Your task to perform on an android device: toggle location history Image 0: 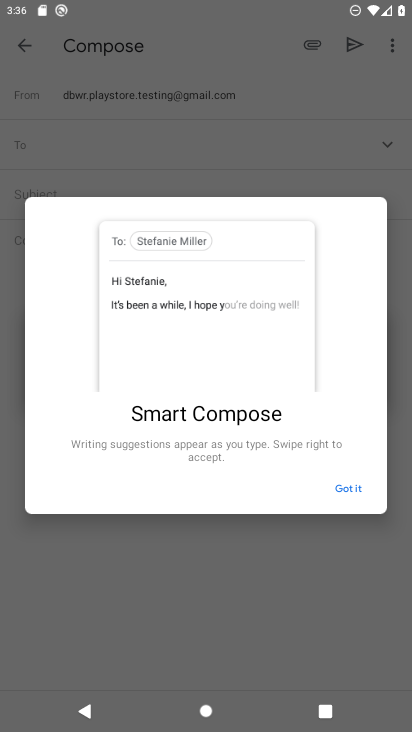
Step 0: press home button
Your task to perform on an android device: toggle location history Image 1: 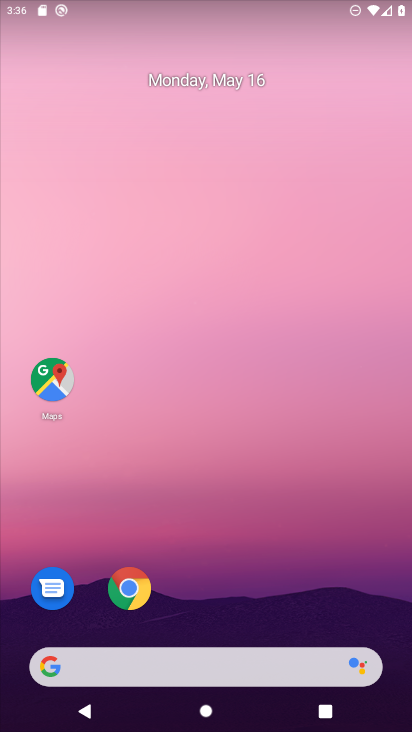
Step 1: click (51, 384)
Your task to perform on an android device: toggle location history Image 2: 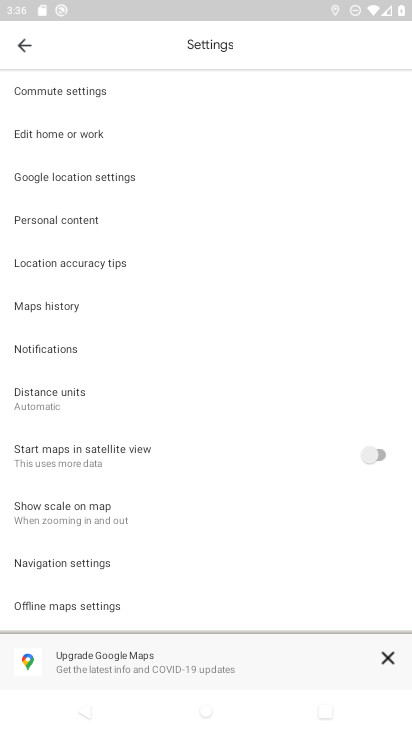
Step 2: click (20, 44)
Your task to perform on an android device: toggle location history Image 3: 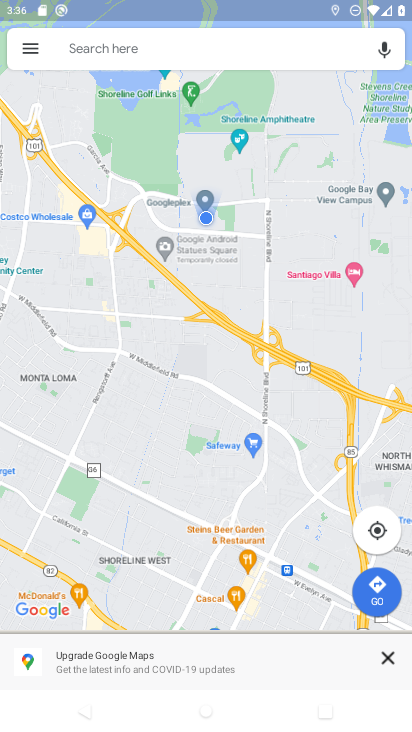
Step 3: click (33, 46)
Your task to perform on an android device: toggle location history Image 4: 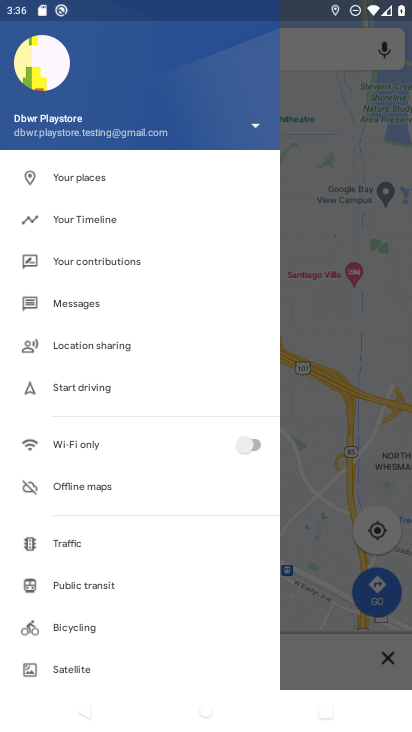
Step 4: click (71, 216)
Your task to perform on an android device: toggle location history Image 5: 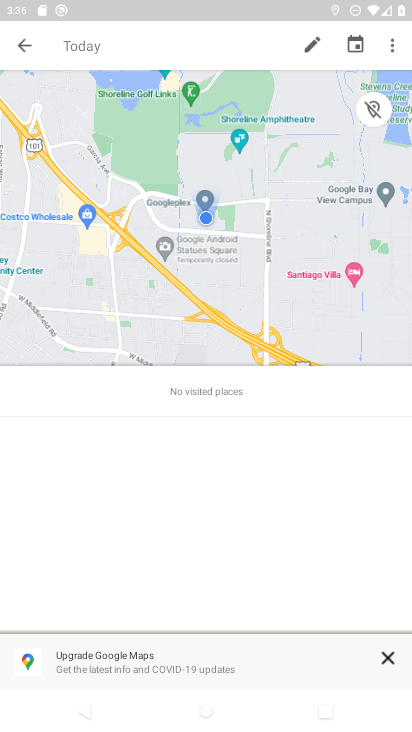
Step 5: click (392, 42)
Your task to perform on an android device: toggle location history Image 6: 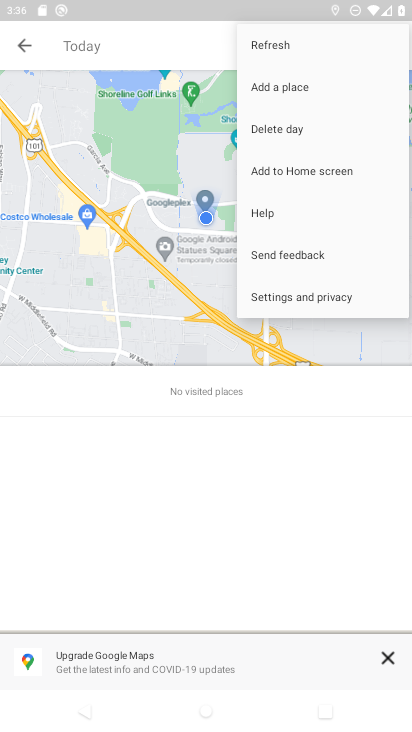
Step 6: click (310, 293)
Your task to perform on an android device: toggle location history Image 7: 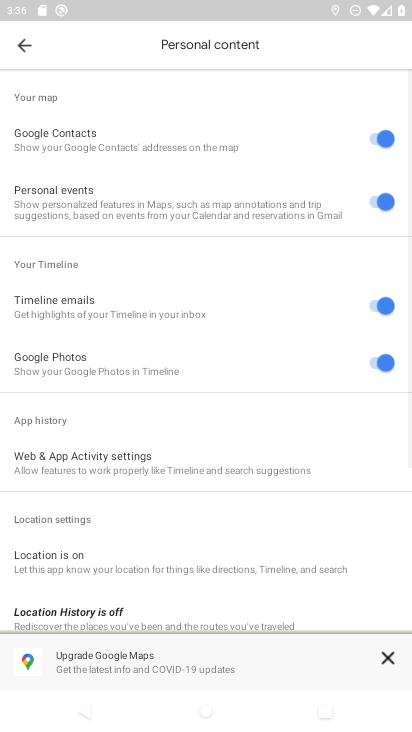
Step 7: drag from (125, 550) to (126, 236)
Your task to perform on an android device: toggle location history Image 8: 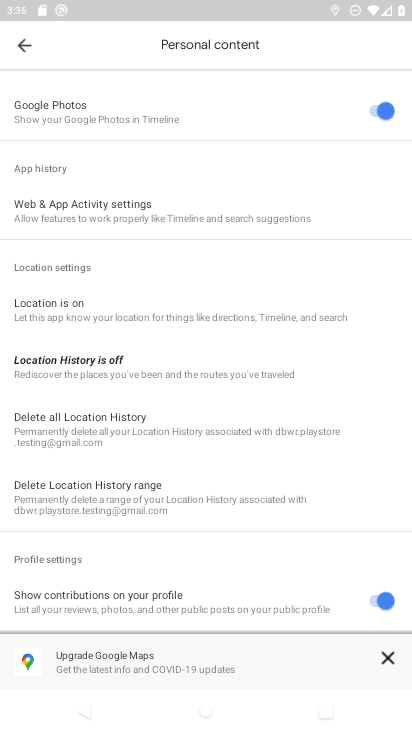
Step 8: click (69, 367)
Your task to perform on an android device: toggle location history Image 9: 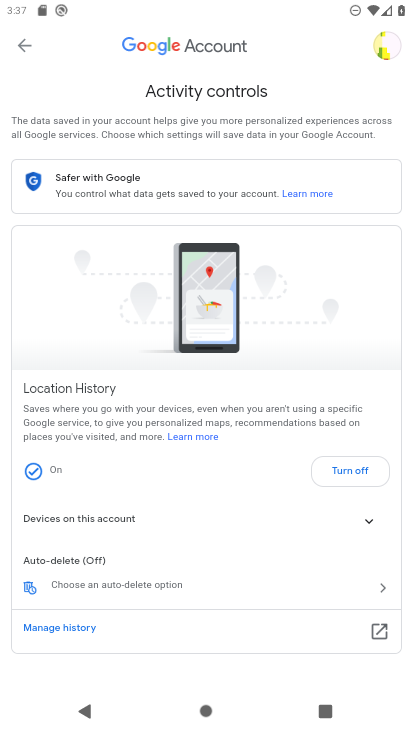
Step 9: click (352, 469)
Your task to perform on an android device: toggle location history Image 10: 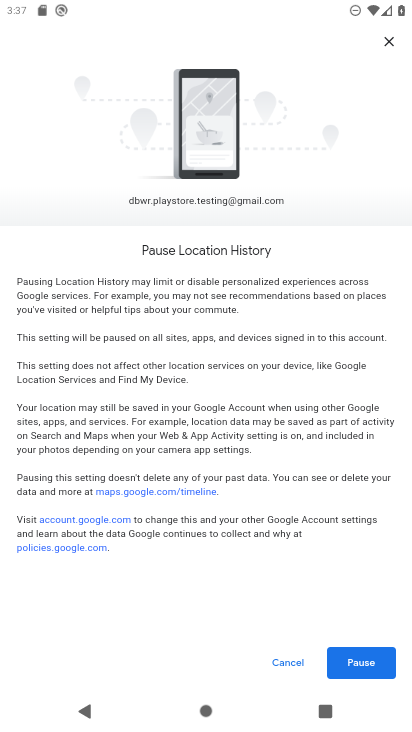
Step 10: click (356, 666)
Your task to perform on an android device: toggle location history Image 11: 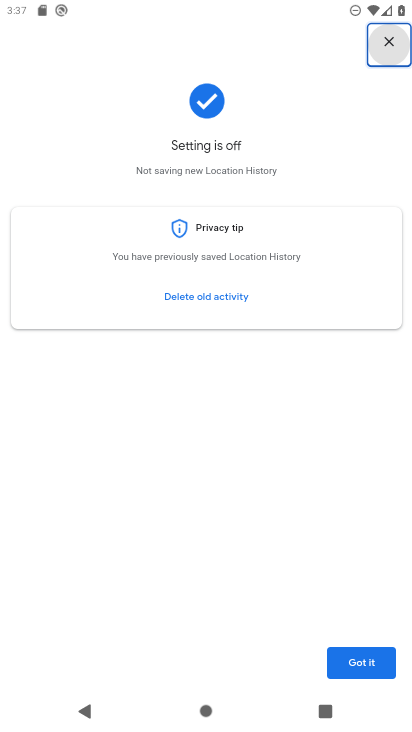
Step 11: click (356, 667)
Your task to perform on an android device: toggle location history Image 12: 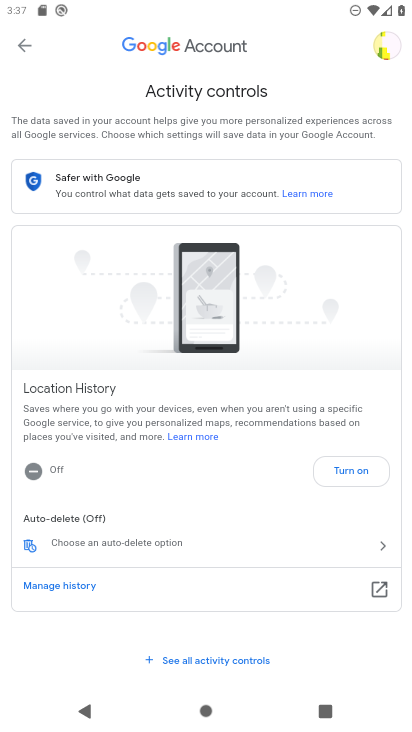
Step 12: task complete